Your task to perform on an android device: find which apps use the phone's location Image 0: 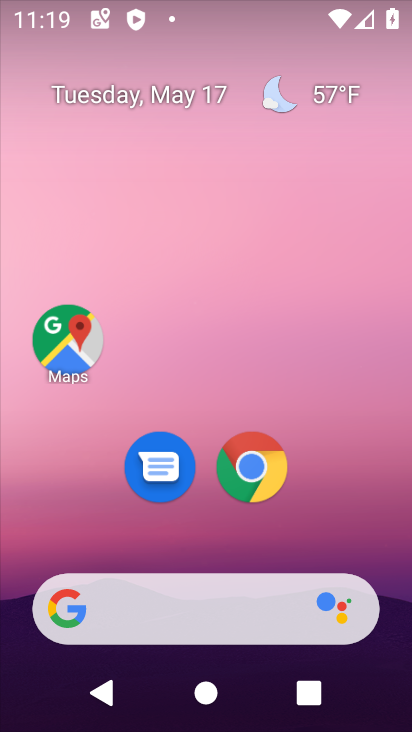
Step 0: drag from (212, 646) to (393, 41)
Your task to perform on an android device: find which apps use the phone's location Image 1: 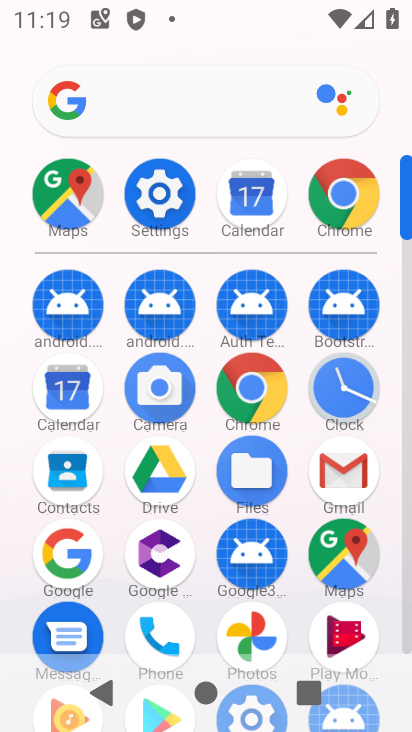
Step 1: click (167, 204)
Your task to perform on an android device: find which apps use the phone's location Image 2: 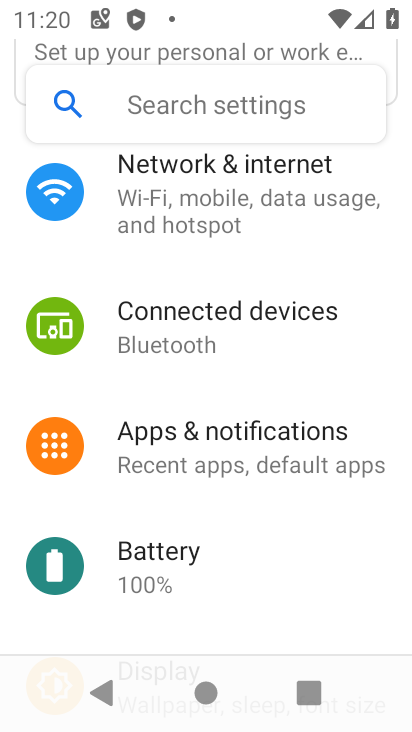
Step 2: click (161, 111)
Your task to perform on an android device: find which apps use the phone's location Image 3: 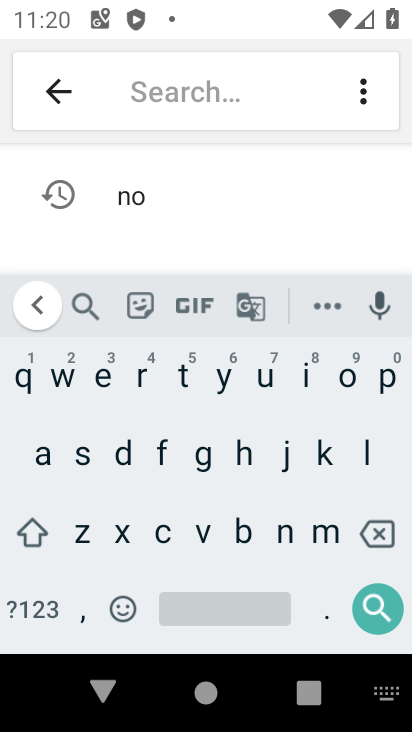
Step 3: click (369, 459)
Your task to perform on an android device: find which apps use the phone's location Image 4: 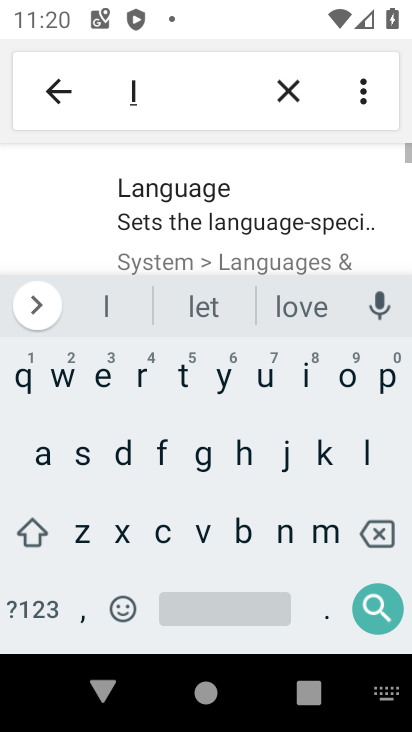
Step 4: click (354, 378)
Your task to perform on an android device: find which apps use the phone's location Image 5: 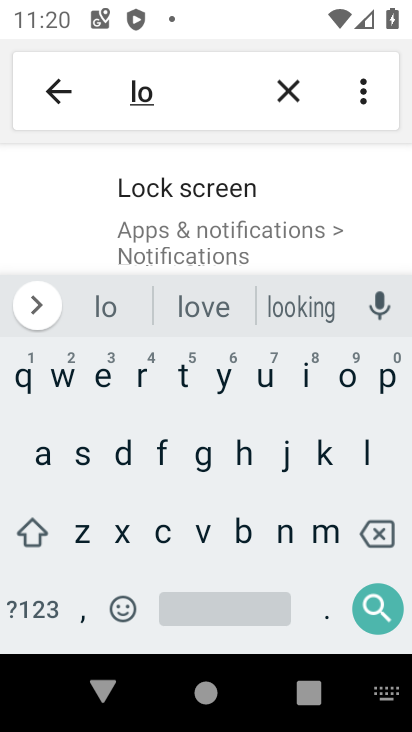
Step 5: click (154, 535)
Your task to perform on an android device: find which apps use the phone's location Image 6: 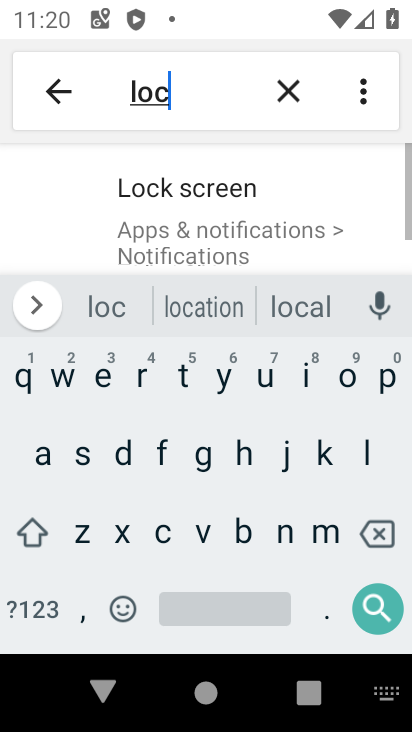
Step 6: click (37, 465)
Your task to perform on an android device: find which apps use the phone's location Image 7: 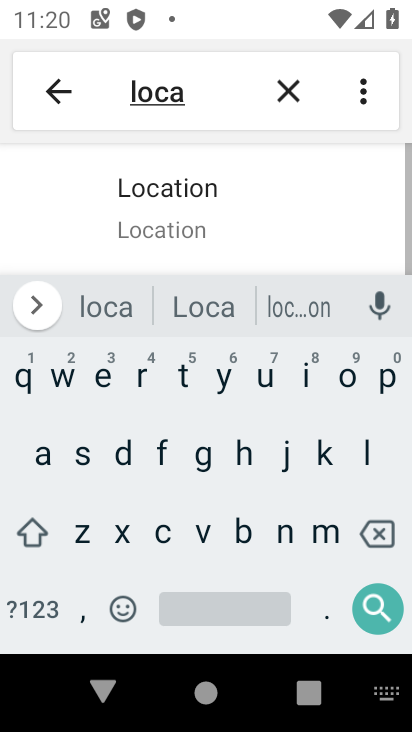
Step 7: click (207, 216)
Your task to perform on an android device: find which apps use the phone's location Image 8: 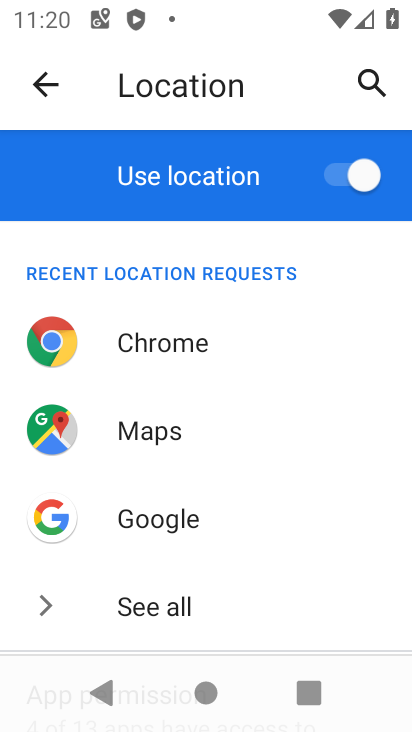
Step 8: task complete